Your task to perform on an android device: toggle notifications settings in the gmail app Image 0: 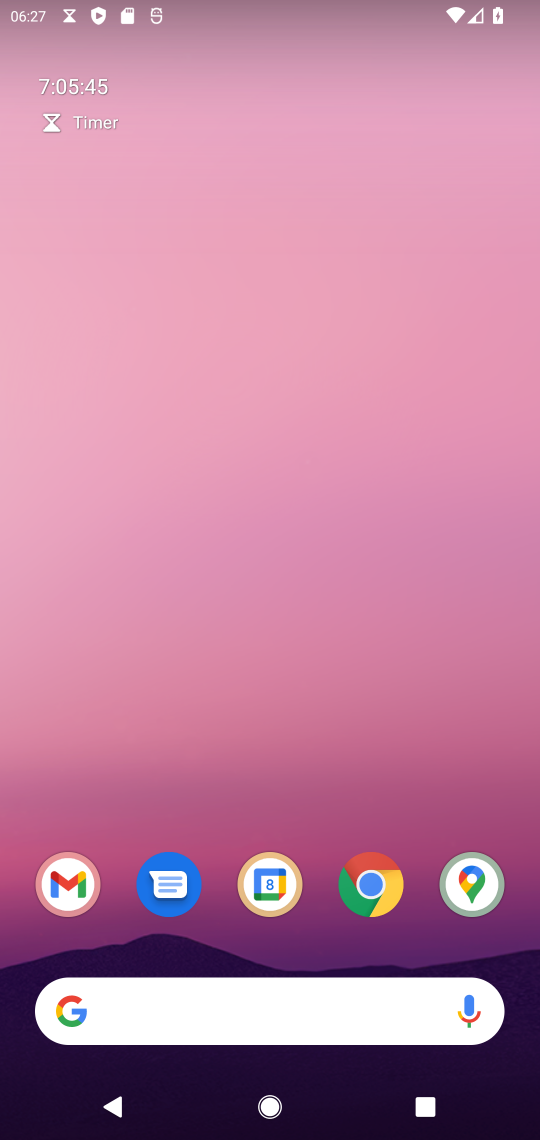
Step 0: click (77, 871)
Your task to perform on an android device: toggle notifications settings in the gmail app Image 1: 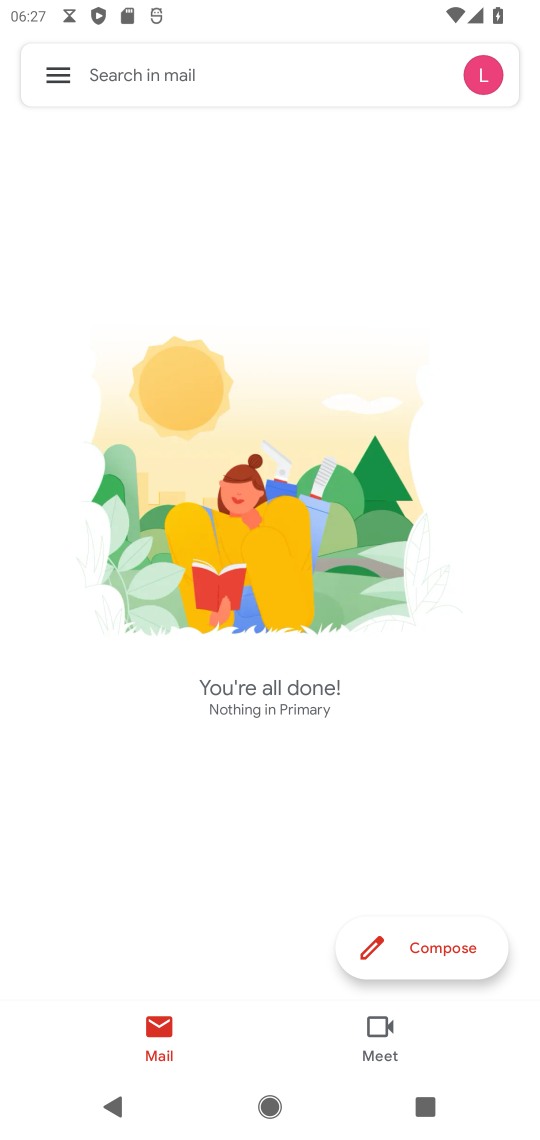
Step 1: click (61, 71)
Your task to perform on an android device: toggle notifications settings in the gmail app Image 2: 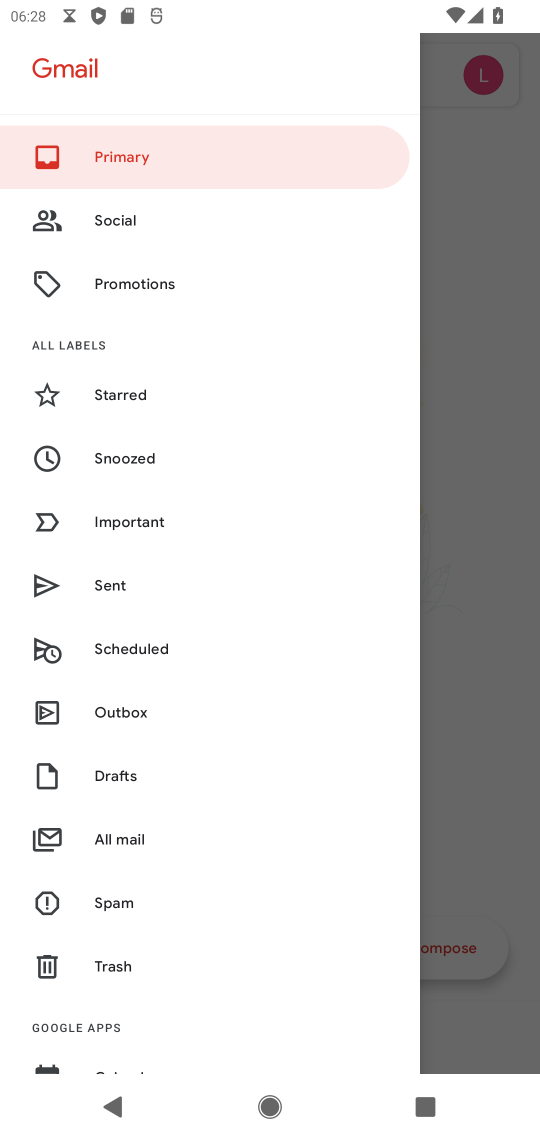
Step 2: drag from (159, 979) to (143, 139)
Your task to perform on an android device: toggle notifications settings in the gmail app Image 3: 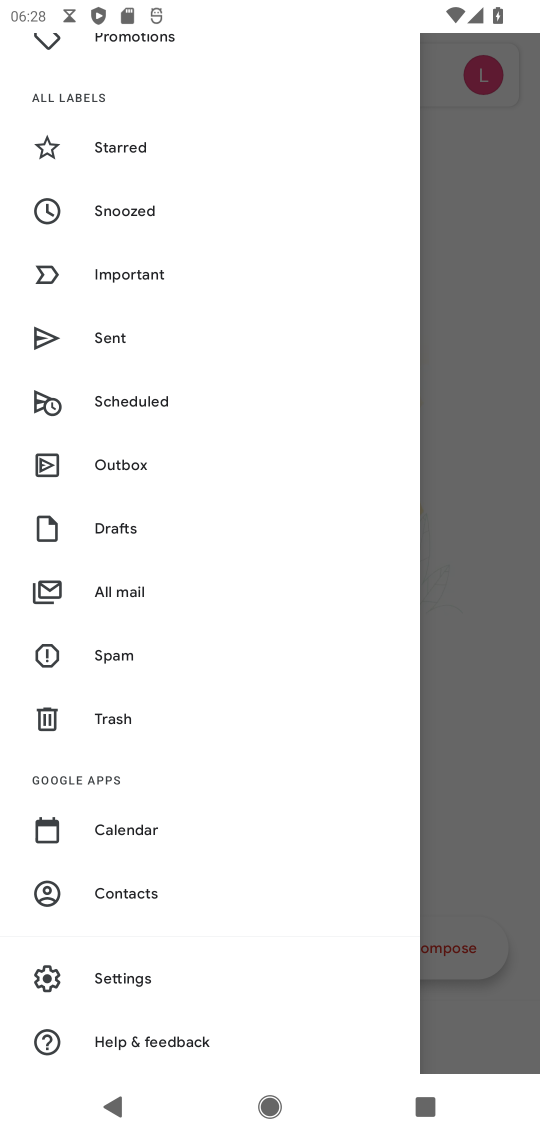
Step 3: click (160, 985)
Your task to perform on an android device: toggle notifications settings in the gmail app Image 4: 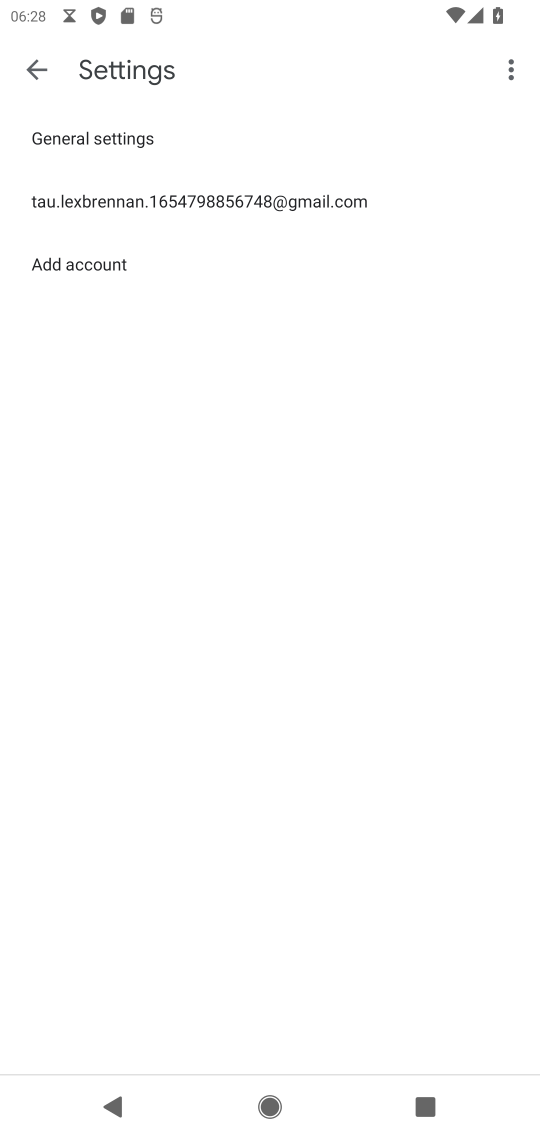
Step 4: click (341, 205)
Your task to perform on an android device: toggle notifications settings in the gmail app Image 5: 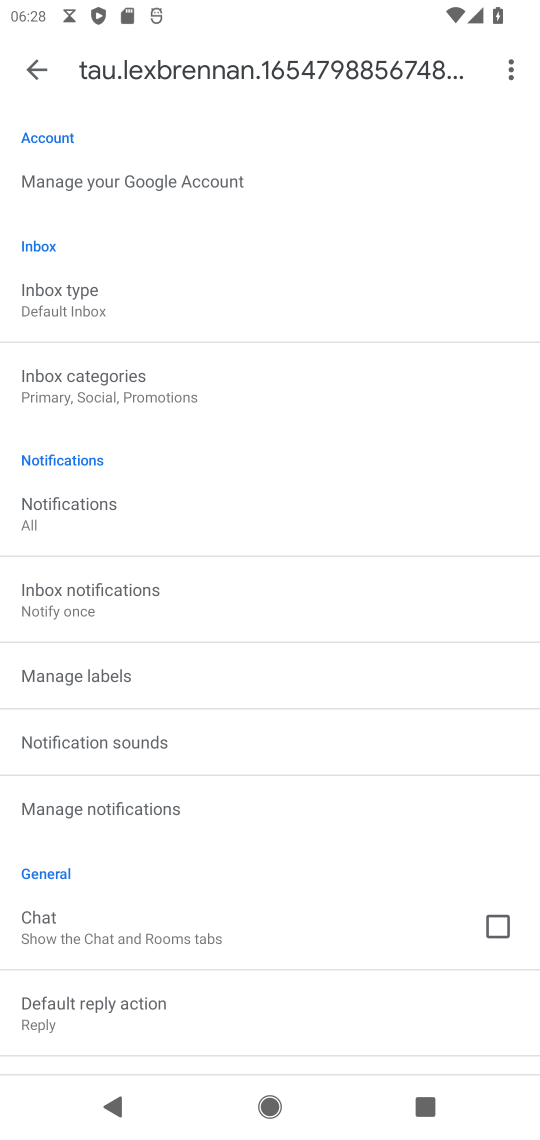
Step 5: click (179, 805)
Your task to perform on an android device: toggle notifications settings in the gmail app Image 6: 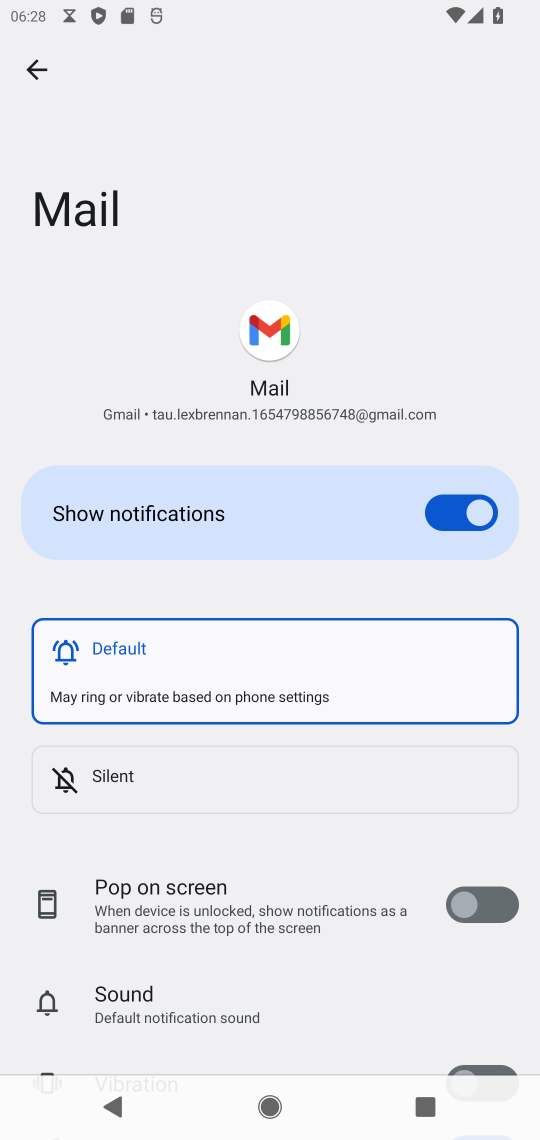
Step 6: drag from (320, 978) to (302, 168)
Your task to perform on an android device: toggle notifications settings in the gmail app Image 7: 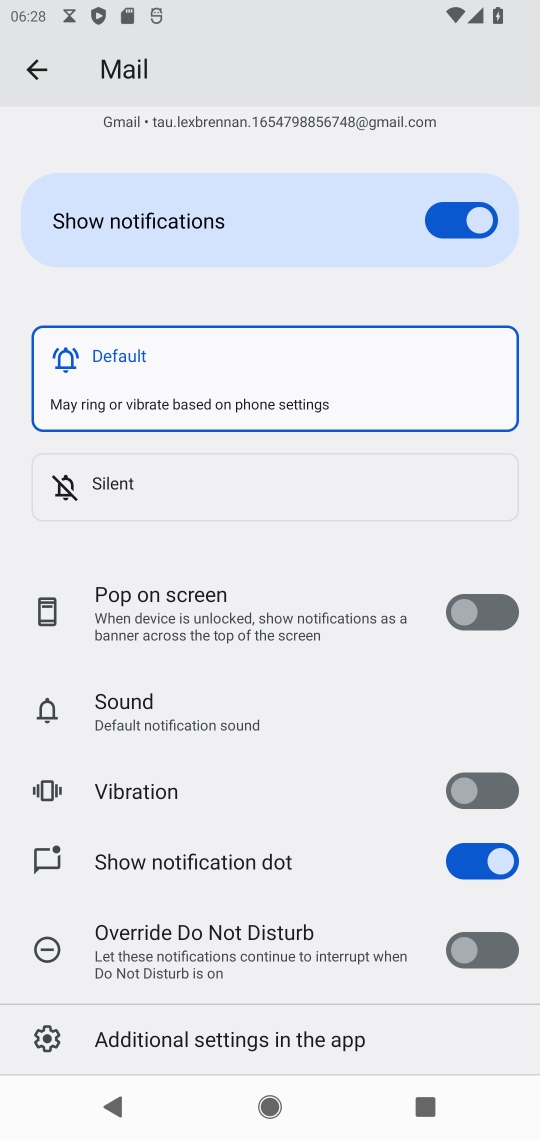
Step 7: drag from (327, 1012) to (275, 548)
Your task to perform on an android device: toggle notifications settings in the gmail app Image 8: 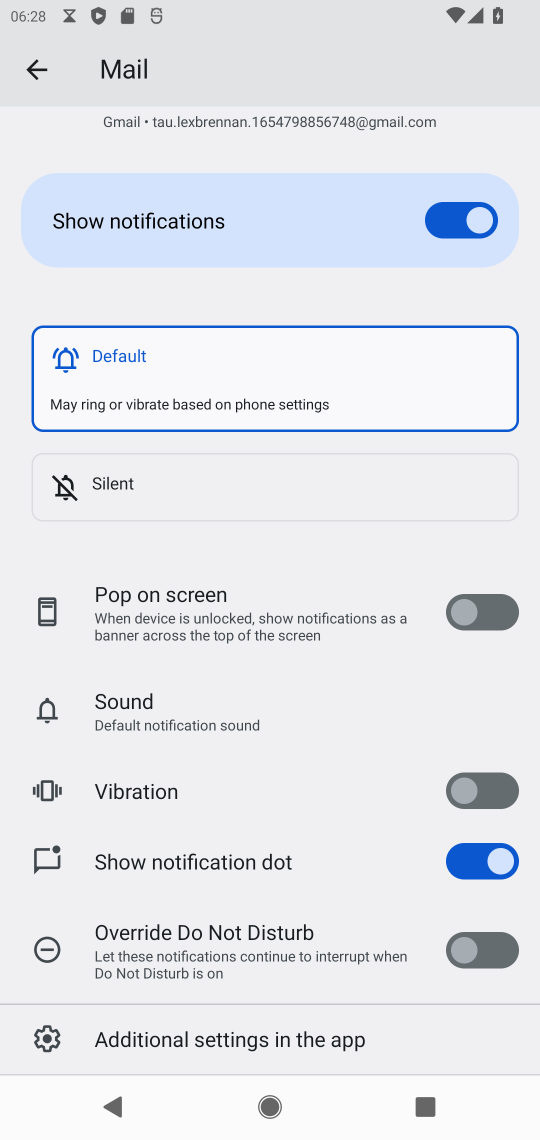
Step 8: click (470, 627)
Your task to perform on an android device: toggle notifications settings in the gmail app Image 9: 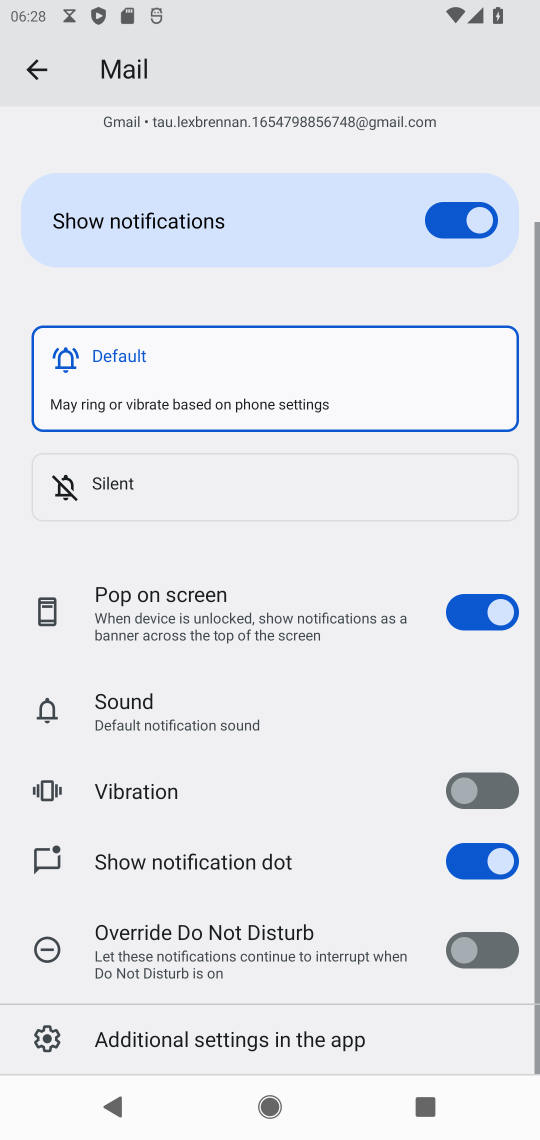
Step 9: click (476, 804)
Your task to perform on an android device: toggle notifications settings in the gmail app Image 10: 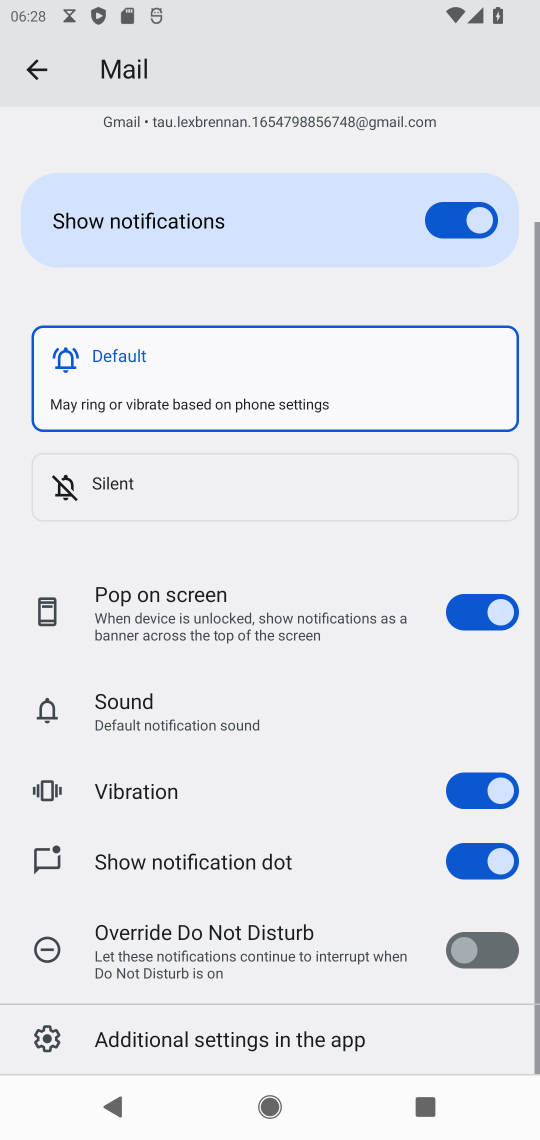
Step 10: click (474, 857)
Your task to perform on an android device: toggle notifications settings in the gmail app Image 11: 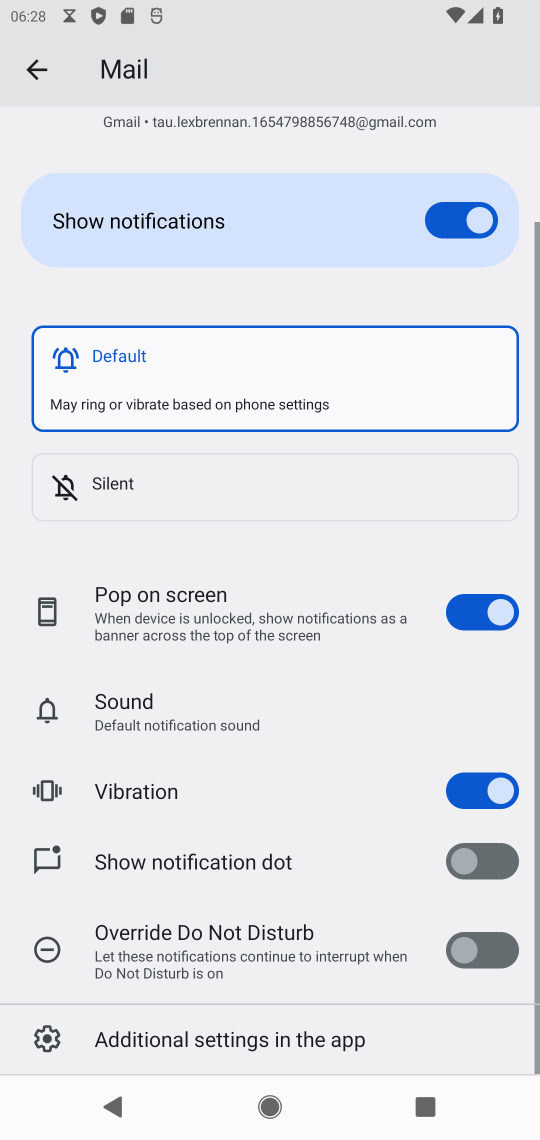
Step 11: click (500, 947)
Your task to perform on an android device: toggle notifications settings in the gmail app Image 12: 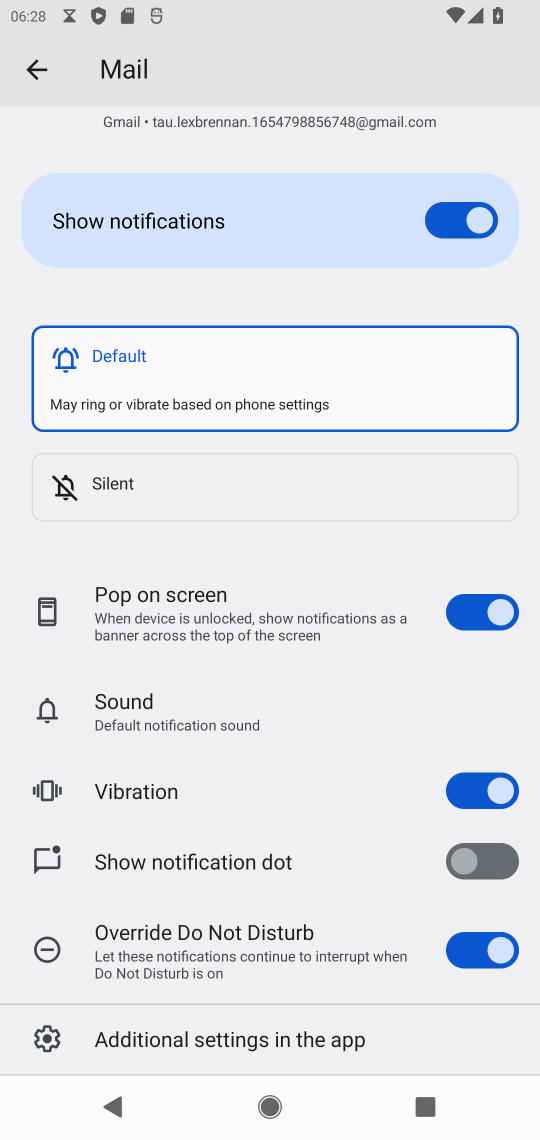
Step 12: task complete